Your task to perform on an android device: Go to CNN.com Image 0: 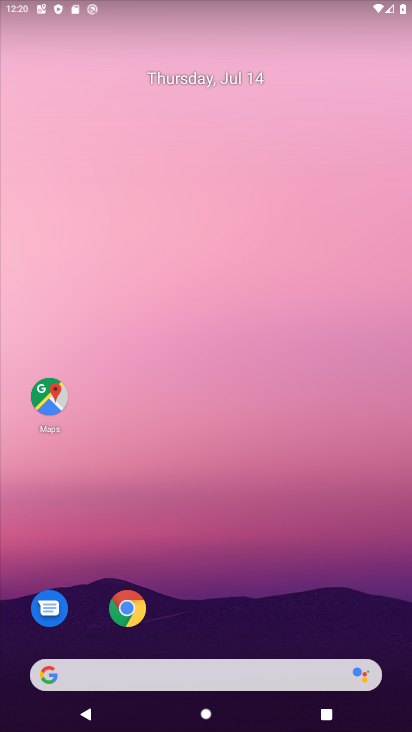
Step 0: task impossible